Your task to perform on an android device: turn off improve location accuracy Image 0: 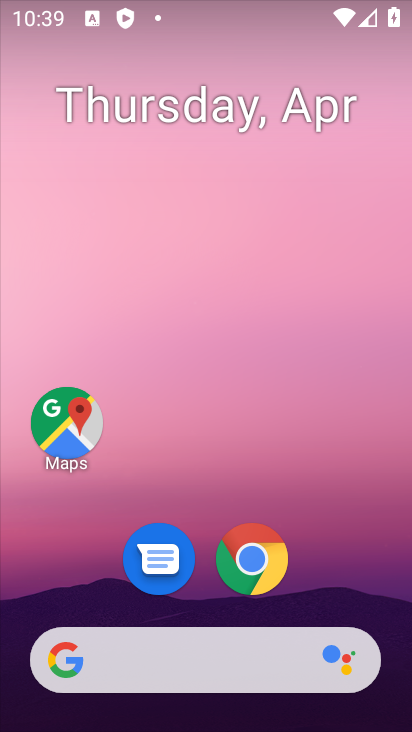
Step 0: drag from (184, 708) to (212, 12)
Your task to perform on an android device: turn off improve location accuracy Image 1: 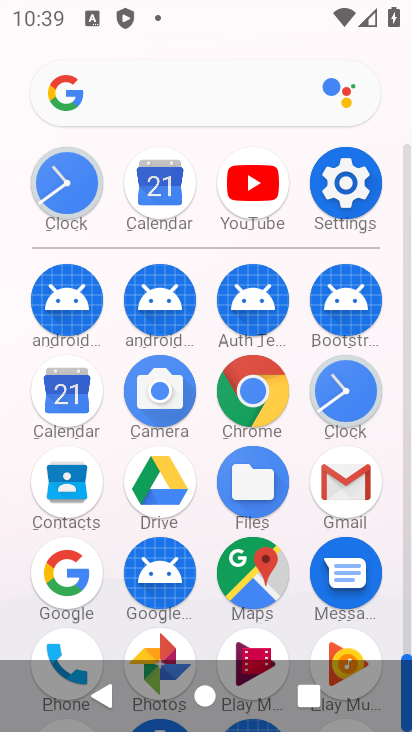
Step 1: click (344, 184)
Your task to perform on an android device: turn off improve location accuracy Image 2: 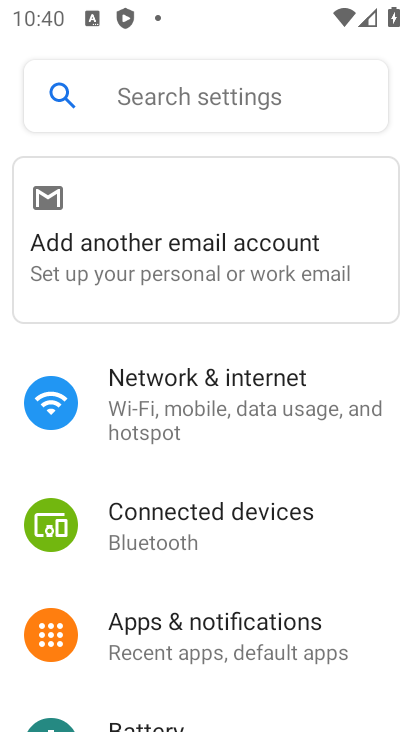
Step 2: drag from (299, 644) to (340, 110)
Your task to perform on an android device: turn off improve location accuracy Image 3: 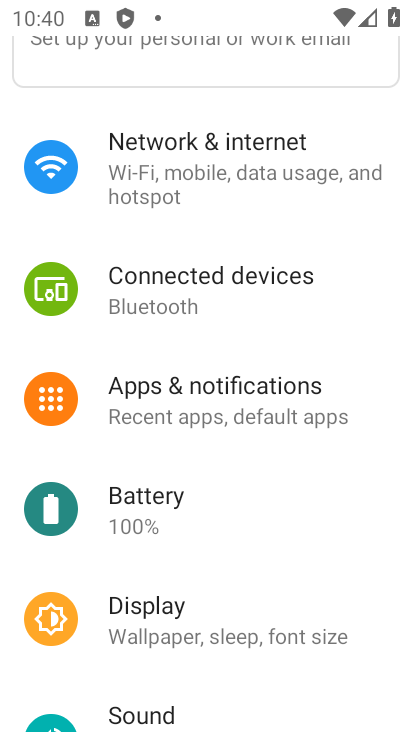
Step 3: drag from (269, 664) to (325, 127)
Your task to perform on an android device: turn off improve location accuracy Image 4: 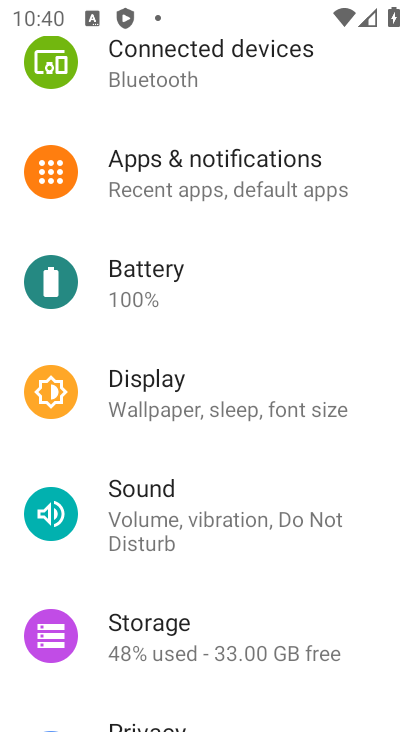
Step 4: drag from (295, 642) to (345, 132)
Your task to perform on an android device: turn off improve location accuracy Image 5: 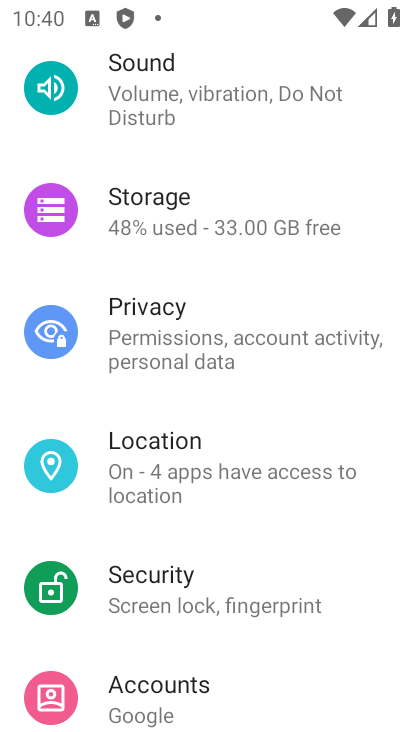
Step 5: click (270, 468)
Your task to perform on an android device: turn off improve location accuracy Image 6: 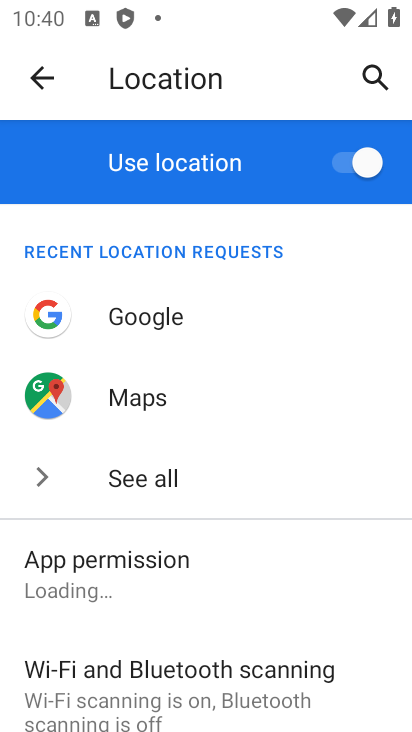
Step 6: click (352, 172)
Your task to perform on an android device: turn off improve location accuracy Image 7: 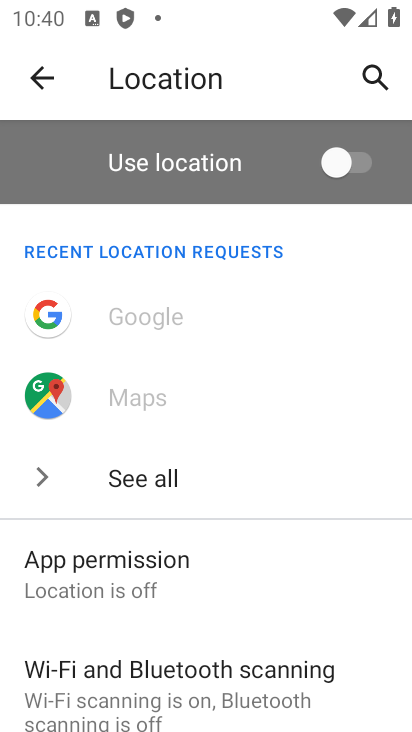
Step 7: task complete